Your task to perform on an android device: Open Yahoo.com Image 0: 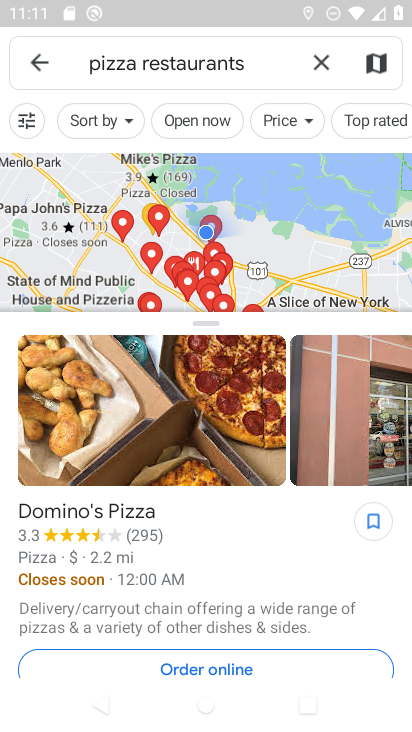
Step 0: press home button
Your task to perform on an android device: Open Yahoo.com Image 1: 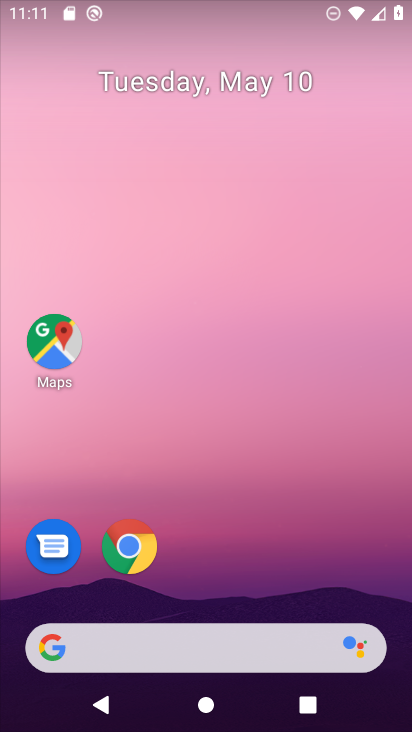
Step 1: click (129, 544)
Your task to perform on an android device: Open Yahoo.com Image 2: 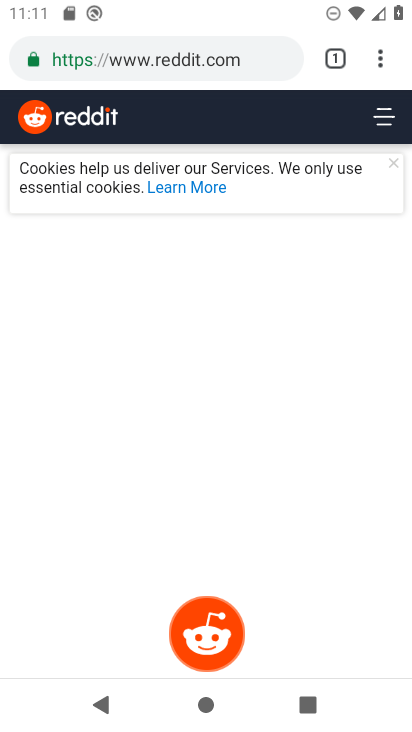
Step 2: click (204, 58)
Your task to perform on an android device: Open Yahoo.com Image 3: 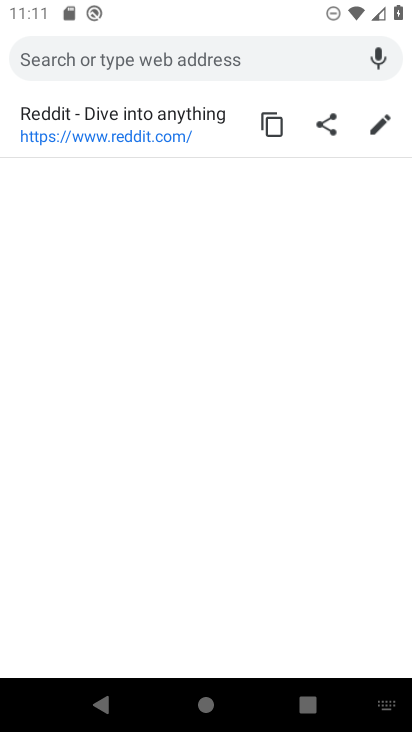
Step 3: type "yahoo.com"
Your task to perform on an android device: Open Yahoo.com Image 4: 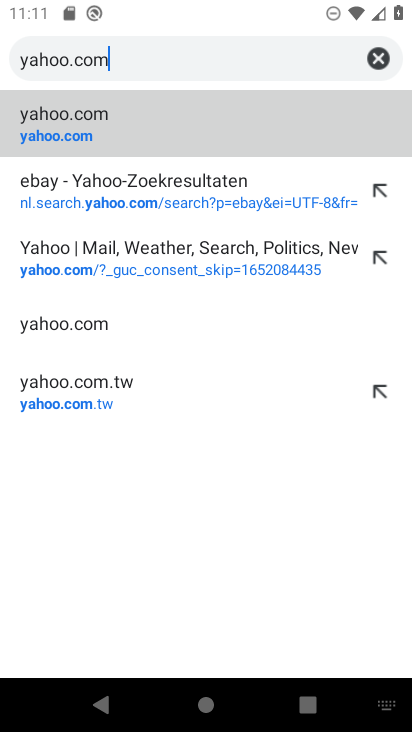
Step 4: click (61, 133)
Your task to perform on an android device: Open Yahoo.com Image 5: 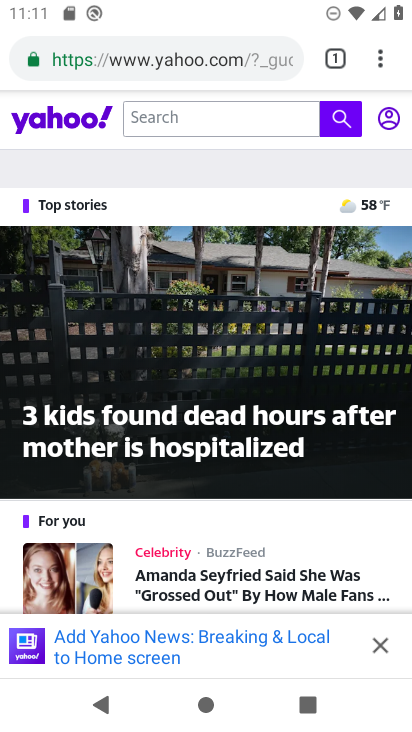
Step 5: task complete